Your task to perform on an android device: uninstall "Expedia: Hotels, Flights & Car" Image 0: 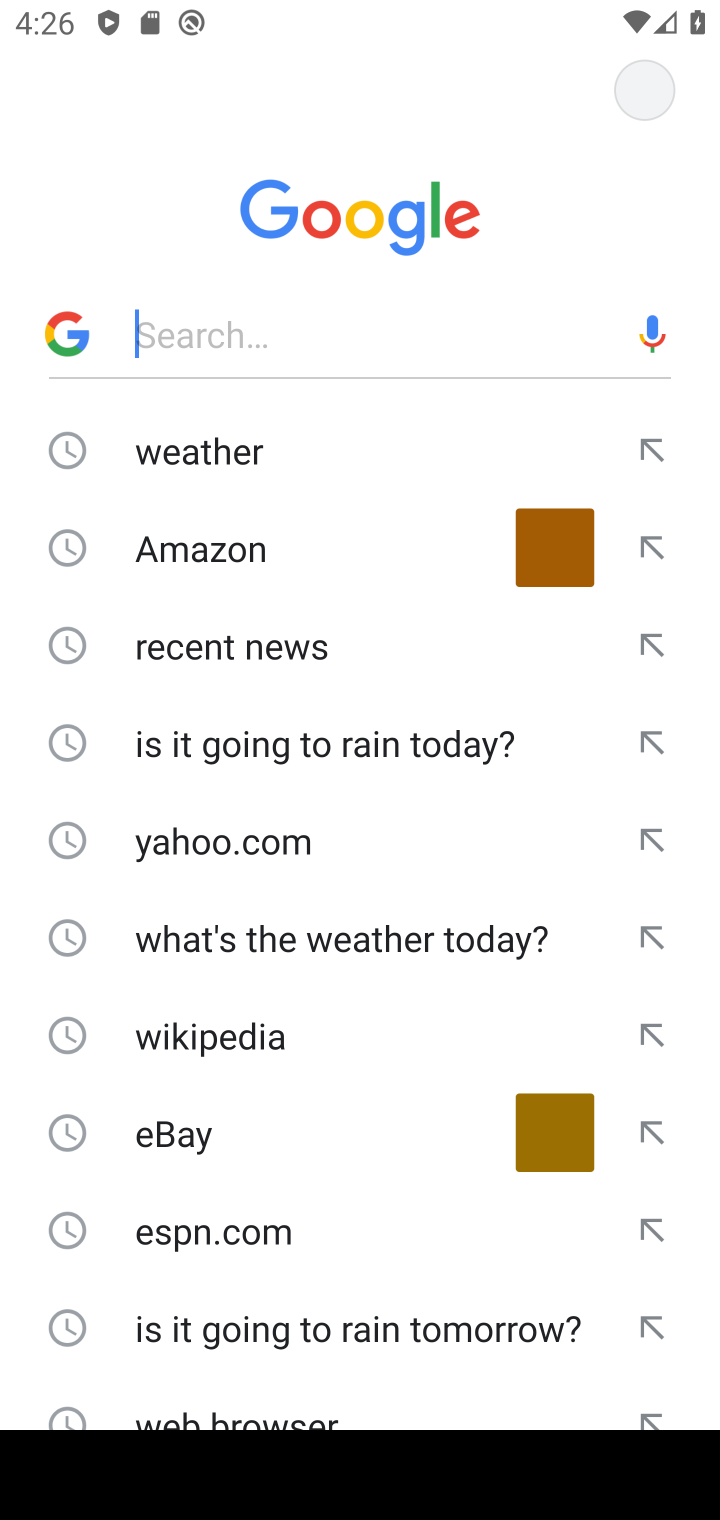
Step 0: press home button
Your task to perform on an android device: uninstall "Expedia: Hotels, Flights & Car" Image 1: 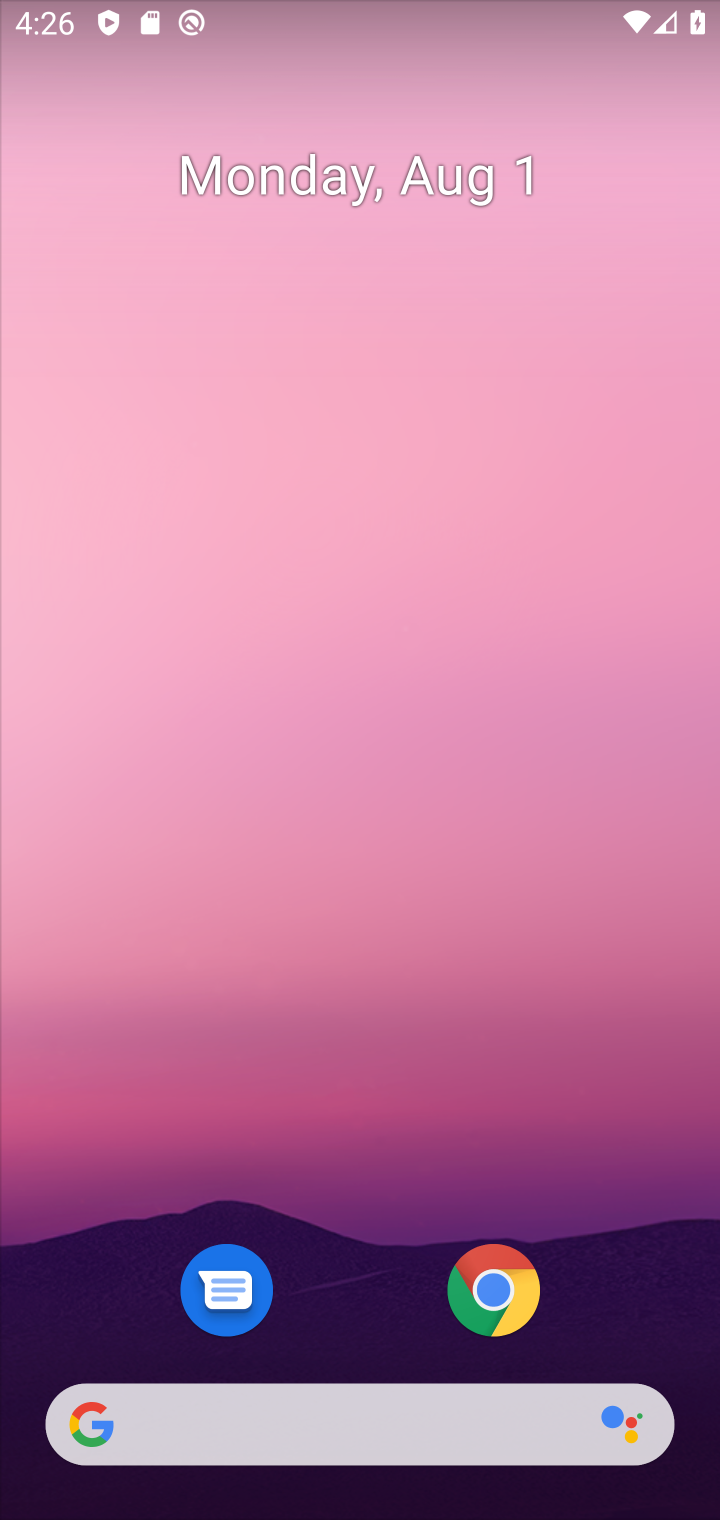
Step 1: drag from (533, 1389) to (529, 209)
Your task to perform on an android device: uninstall "Expedia: Hotels, Flights & Car" Image 2: 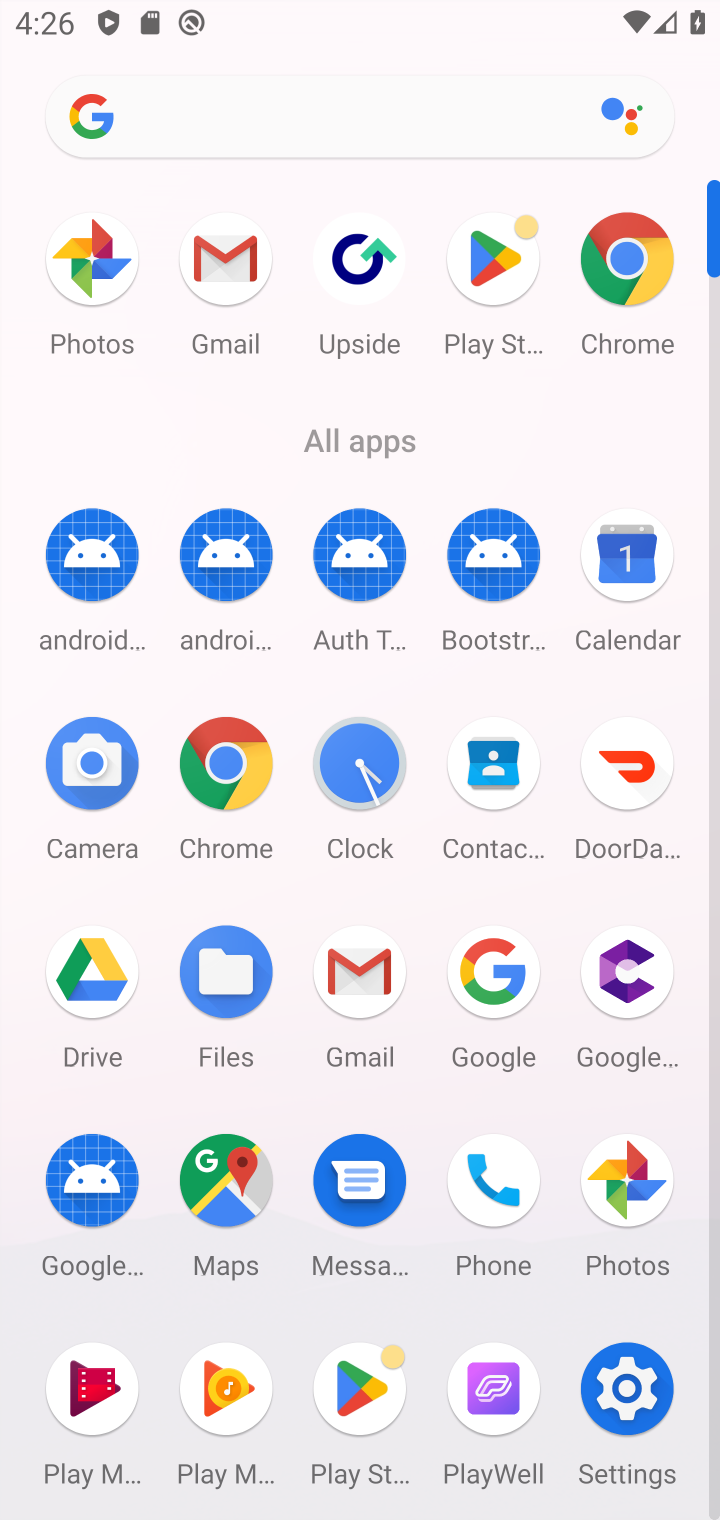
Step 2: click (502, 275)
Your task to perform on an android device: uninstall "Expedia: Hotels, Flights & Car" Image 3: 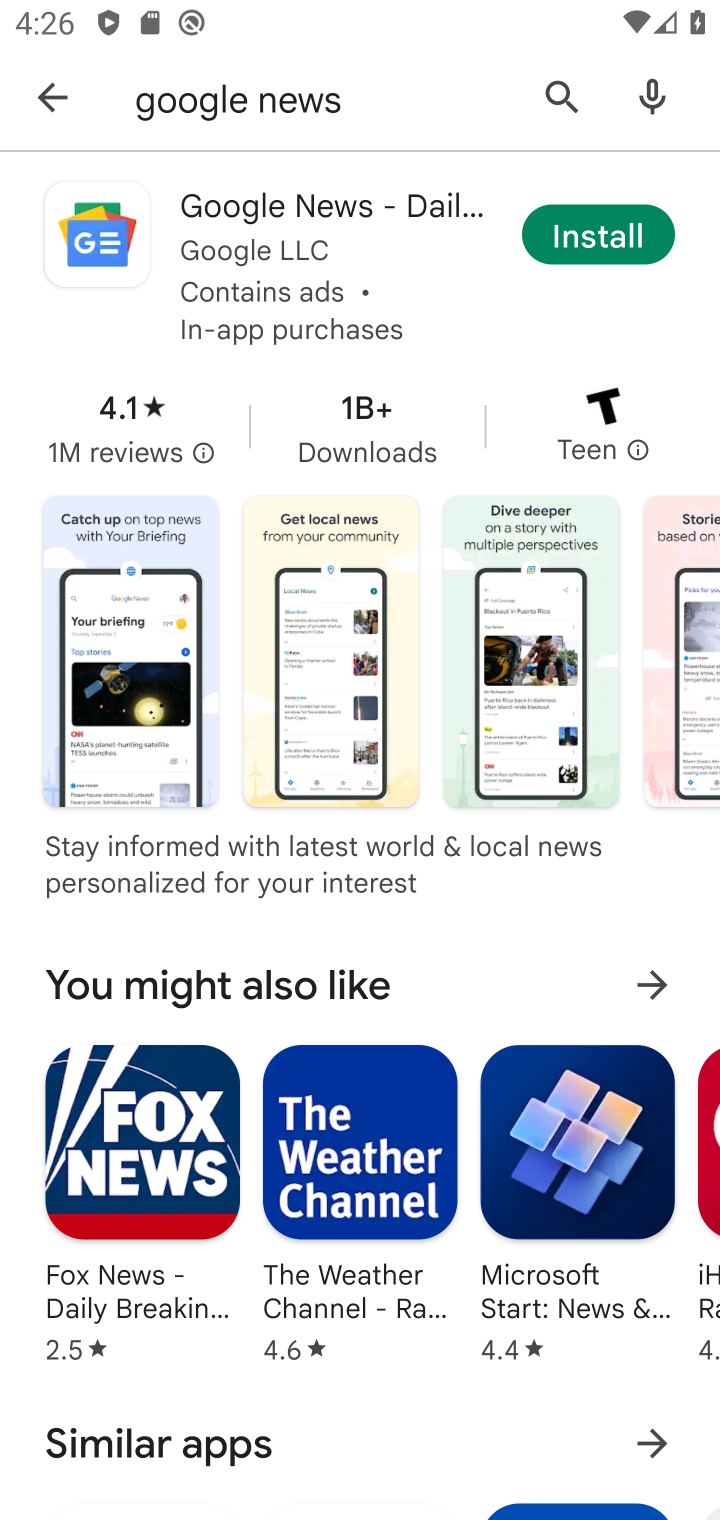
Step 3: click (564, 86)
Your task to perform on an android device: uninstall "Expedia: Hotels, Flights & Car" Image 4: 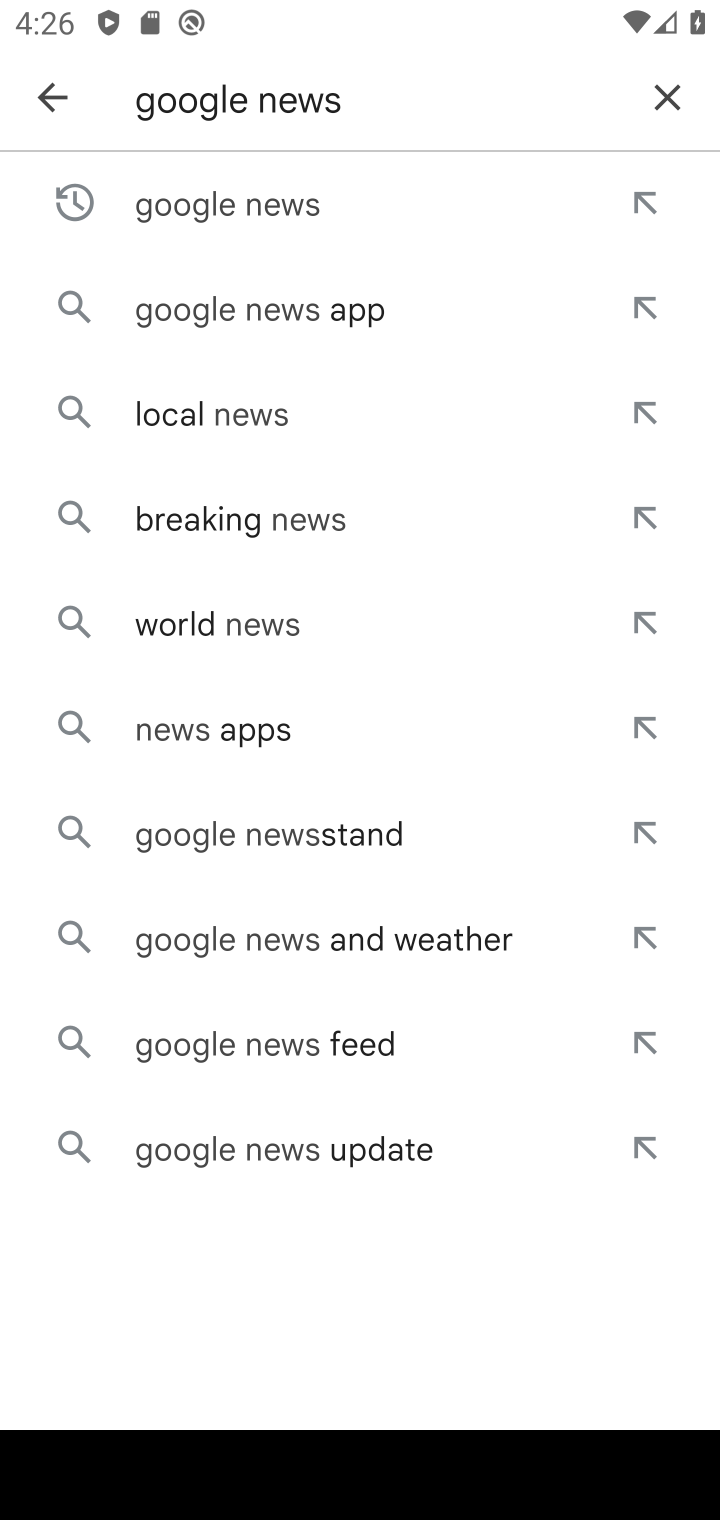
Step 4: click (679, 99)
Your task to perform on an android device: uninstall "Expedia: Hotels, Flights & Car" Image 5: 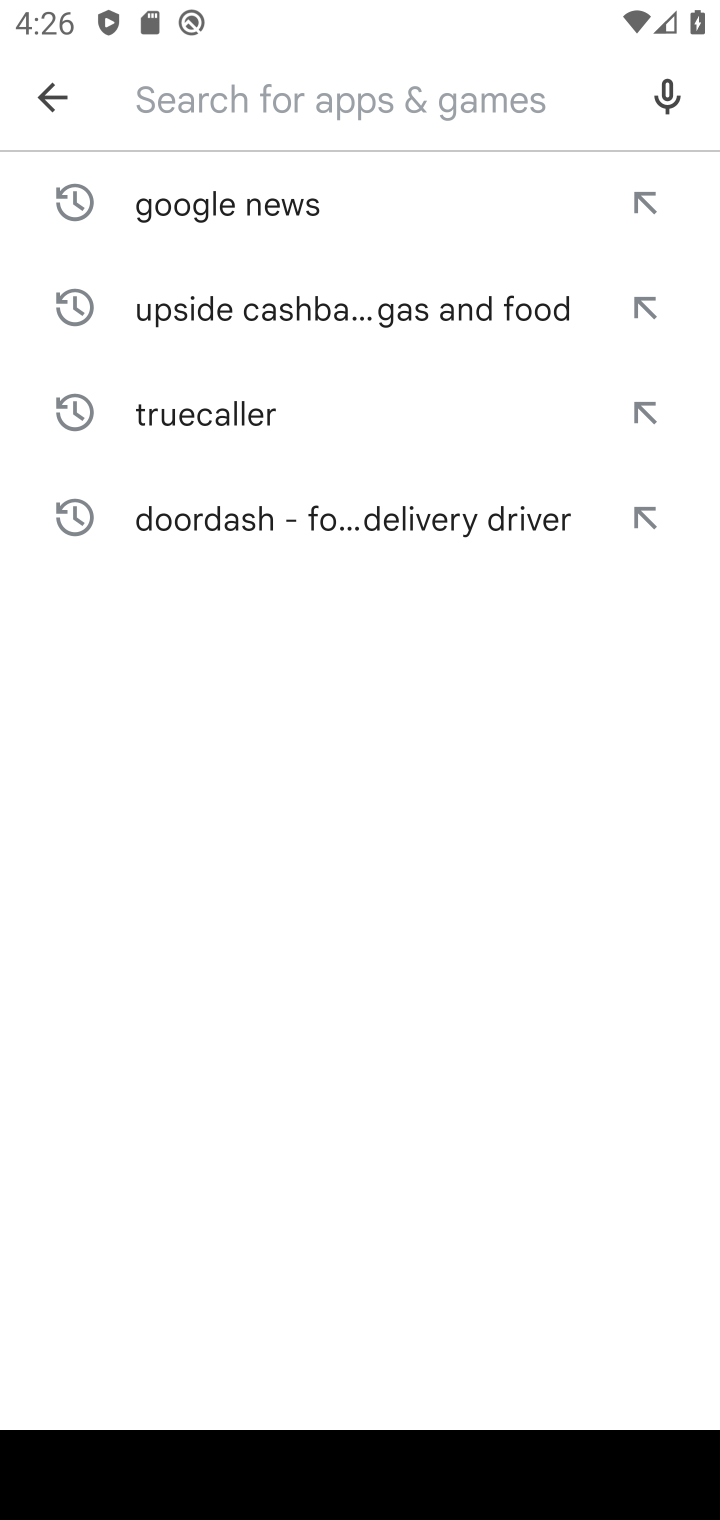
Step 5: click (679, 99)
Your task to perform on an android device: uninstall "Expedia: Hotels, Flights & Car" Image 6: 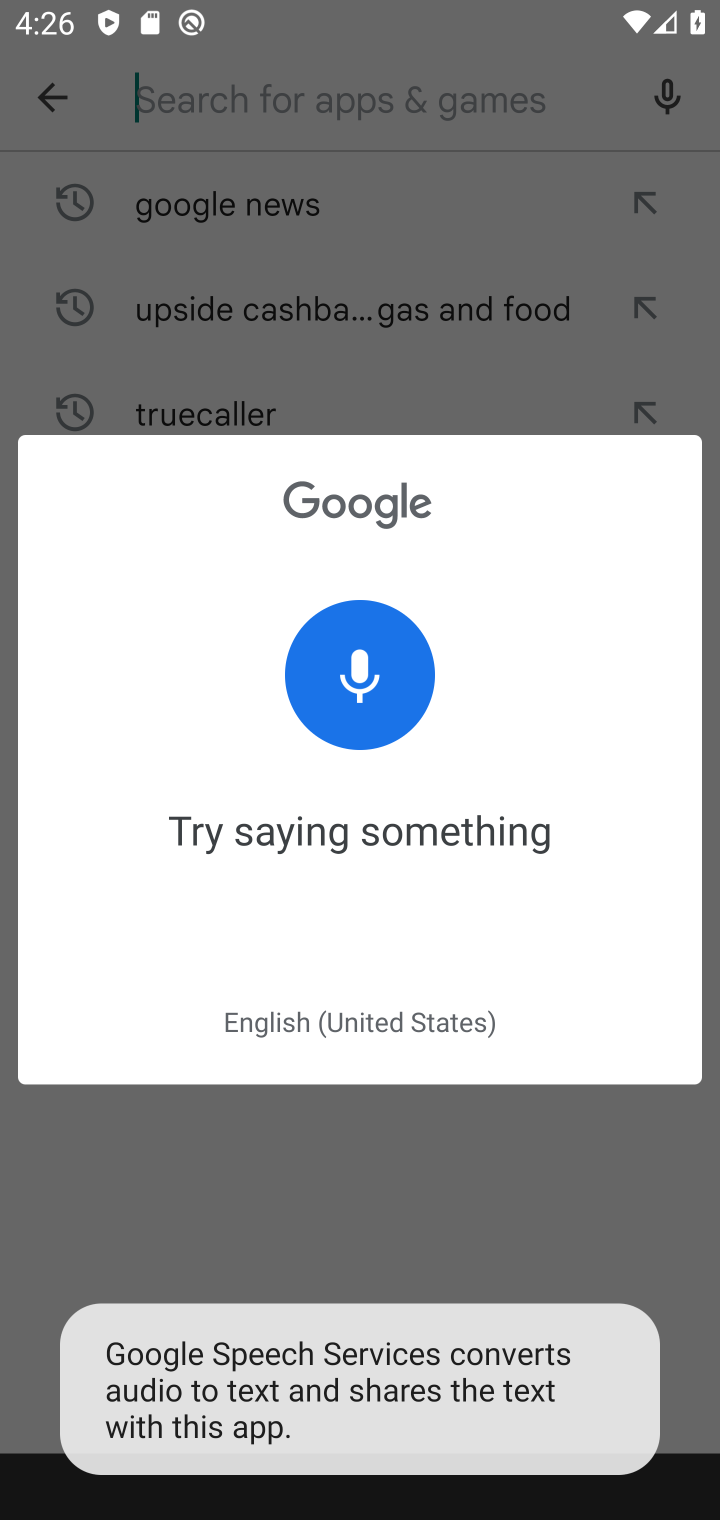
Step 6: click (410, 1122)
Your task to perform on an android device: uninstall "Expedia: Hotels, Flights & Car" Image 7: 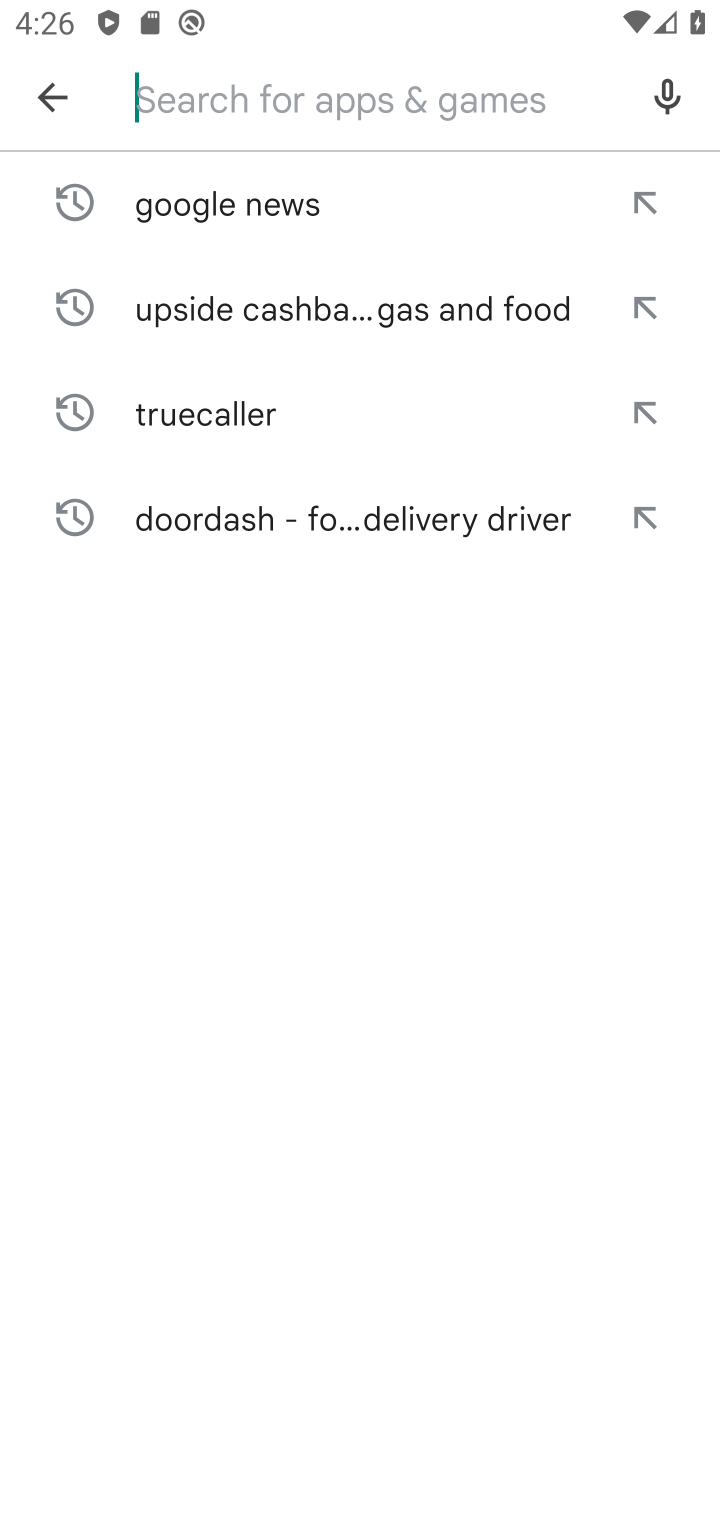
Step 7: click (376, 110)
Your task to perform on an android device: uninstall "Expedia: Hotels, Flights & Car" Image 8: 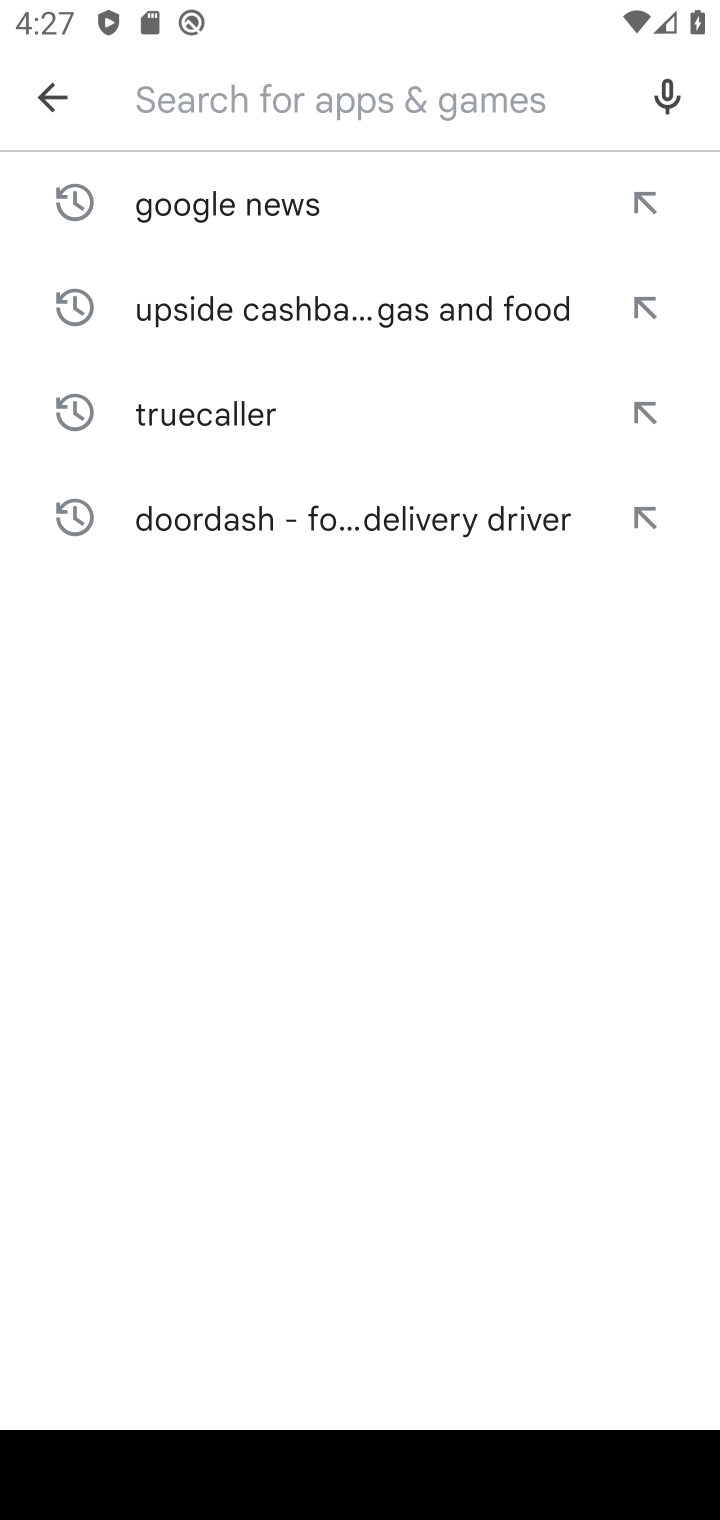
Step 8: type "expedia: Hotels, flights & car"
Your task to perform on an android device: uninstall "Expedia: Hotels, Flights & Car" Image 9: 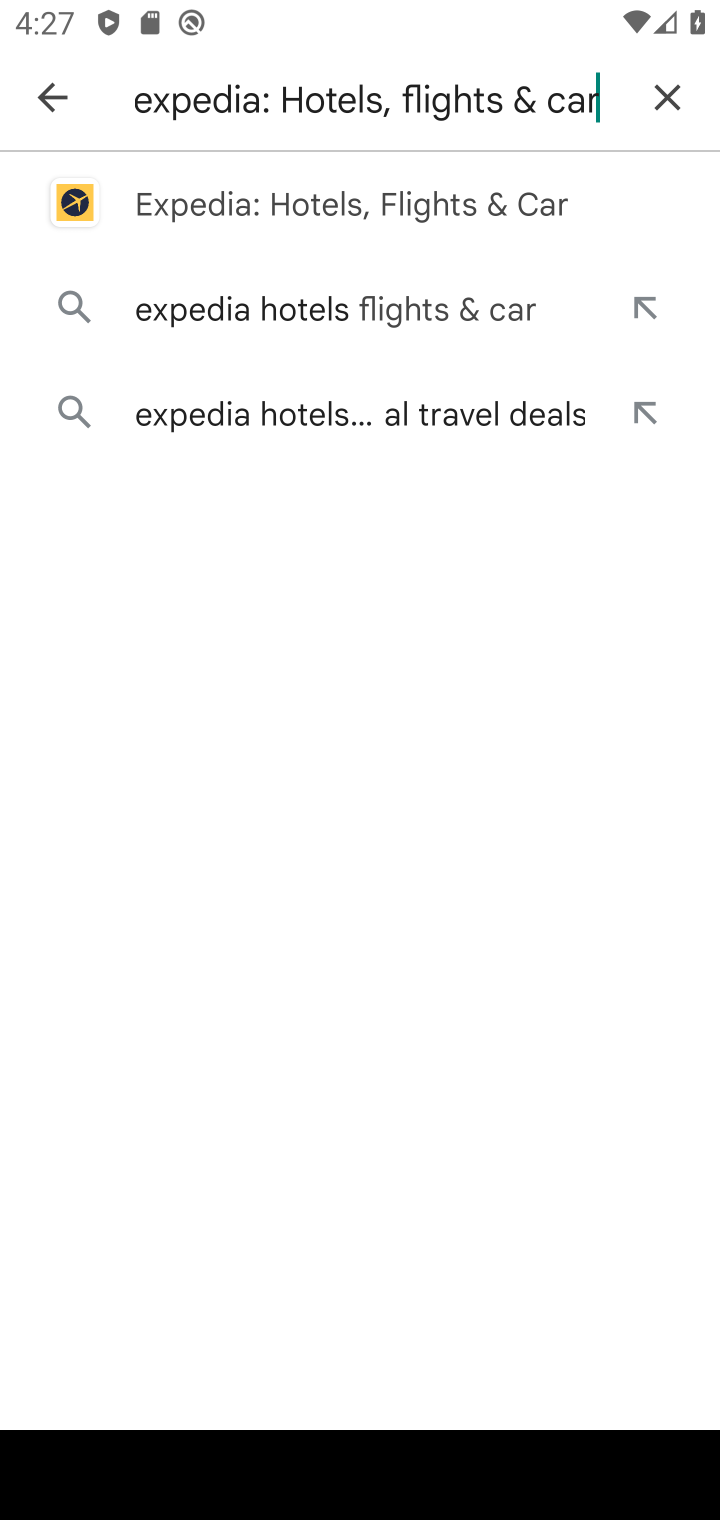
Step 9: click (486, 194)
Your task to perform on an android device: uninstall "Expedia: Hotels, Flights & Car" Image 10: 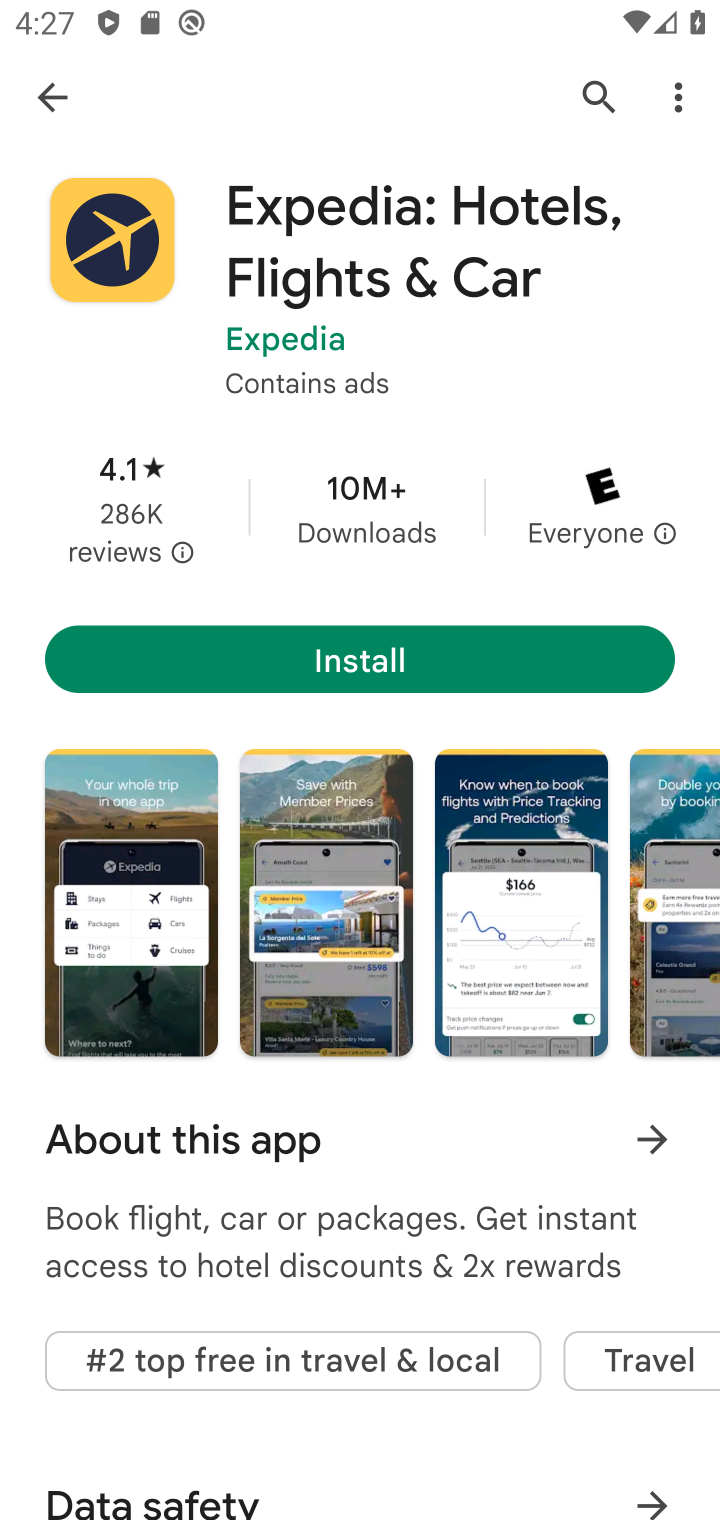
Step 10: task complete